Your task to perform on an android device: search for starred emails in the gmail app Image 0: 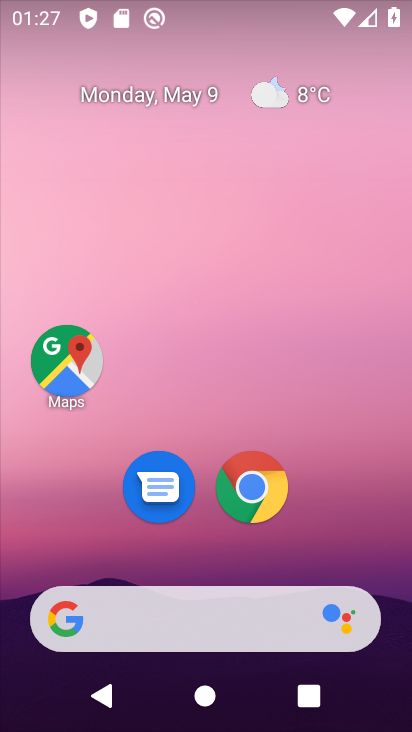
Step 0: drag from (339, 547) to (278, 128)
Your task to perform on an android device: search for starred emails in the gmail app Image 1: 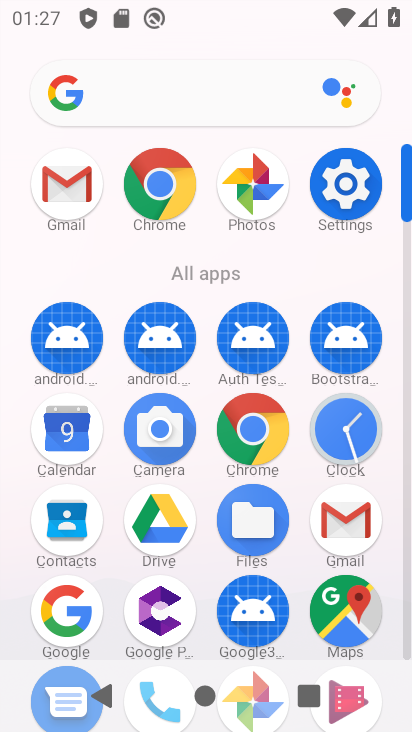
Step 1: click (338, 522)
Your task to perform on an android device: search for starred emails in the gmail app Image 2: 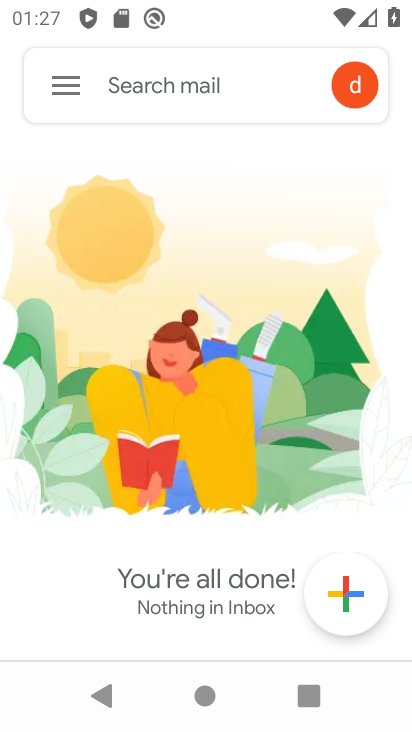
Step 2: click (69, 79)
Your task to perform on an android device: search for starred emails in the gmail app Image 3: 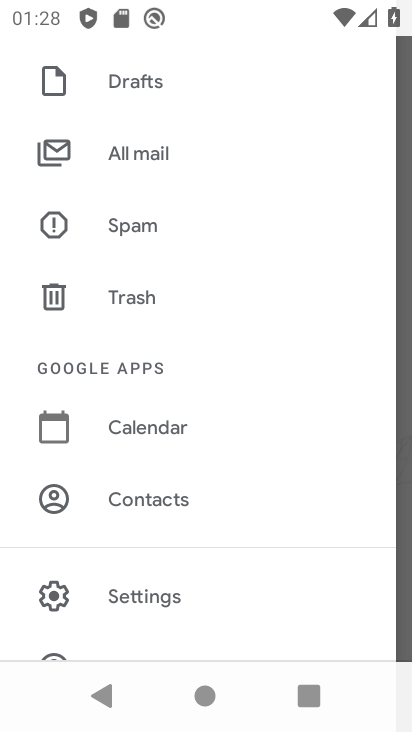
Step 3: drag from (197, 588) to (176, 313)
Your task to perform on an android device: search for starred emails in the gmail app Image 4: 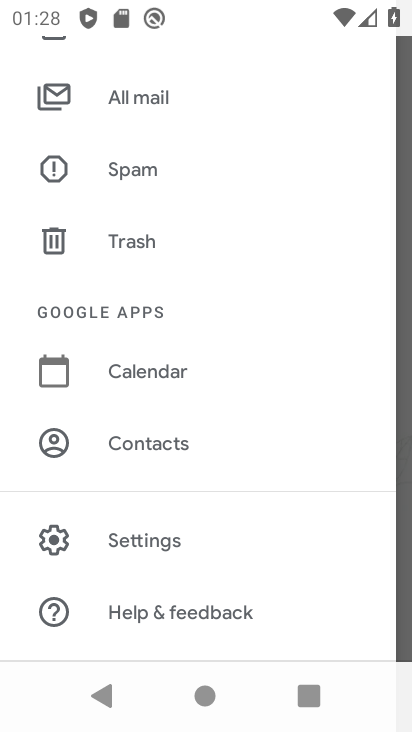
Step 4: drag from (191, 516) to (206, 558)
Your task to perform on an android device: search for starred emails in the gmail app Image 5: 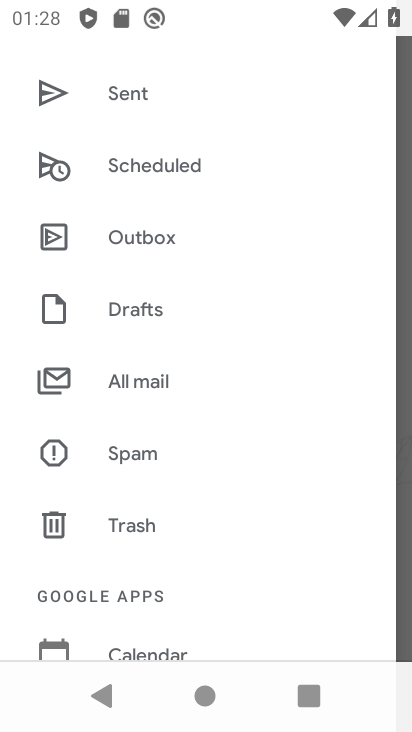
Step 5: drag from (166, 172) to (200, 539)
Your task to perform on an android device: search for starred emails in the gmail app Image 6: 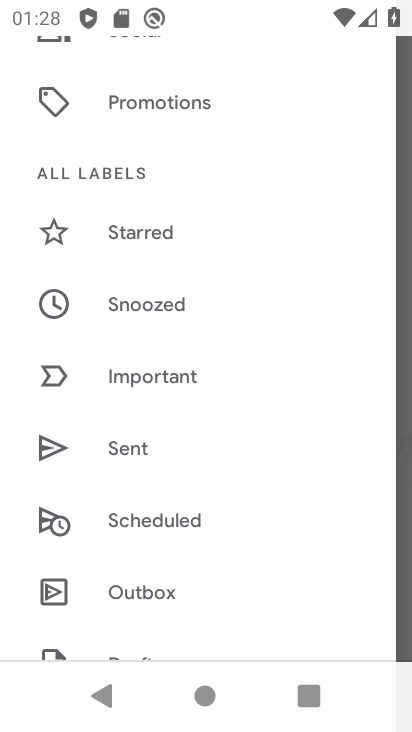
Step 6: click (154, 230)
Your task to perform on an android device: search for starred emails in the gmail app Image 7: 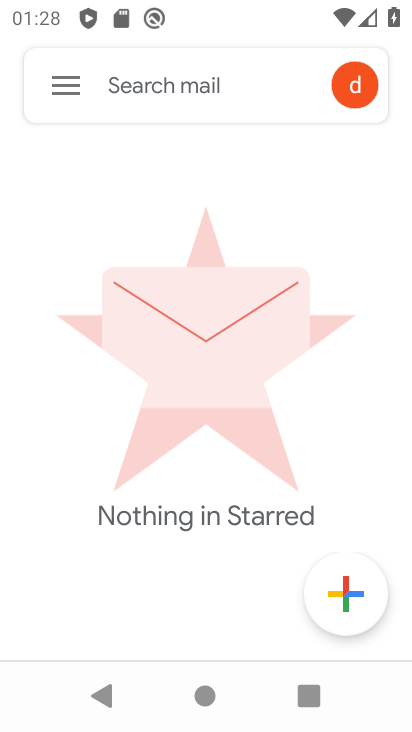
Step 7: task complete